Your task to perform on an android device: Go to location settings Image 0: 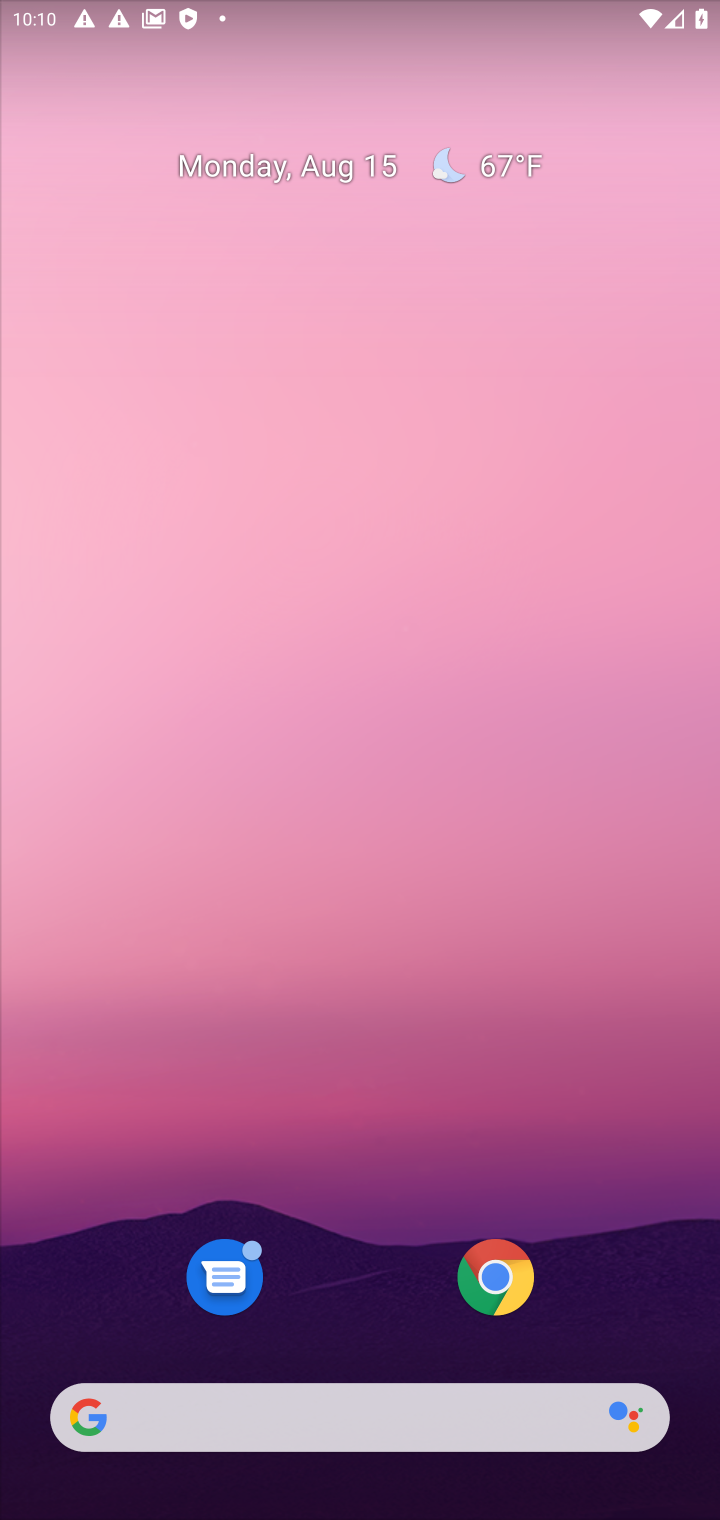
Step 0: drag from (305, 1323) to (287, 207)
Your task to perform on an android device: Go to location settings Image 1: 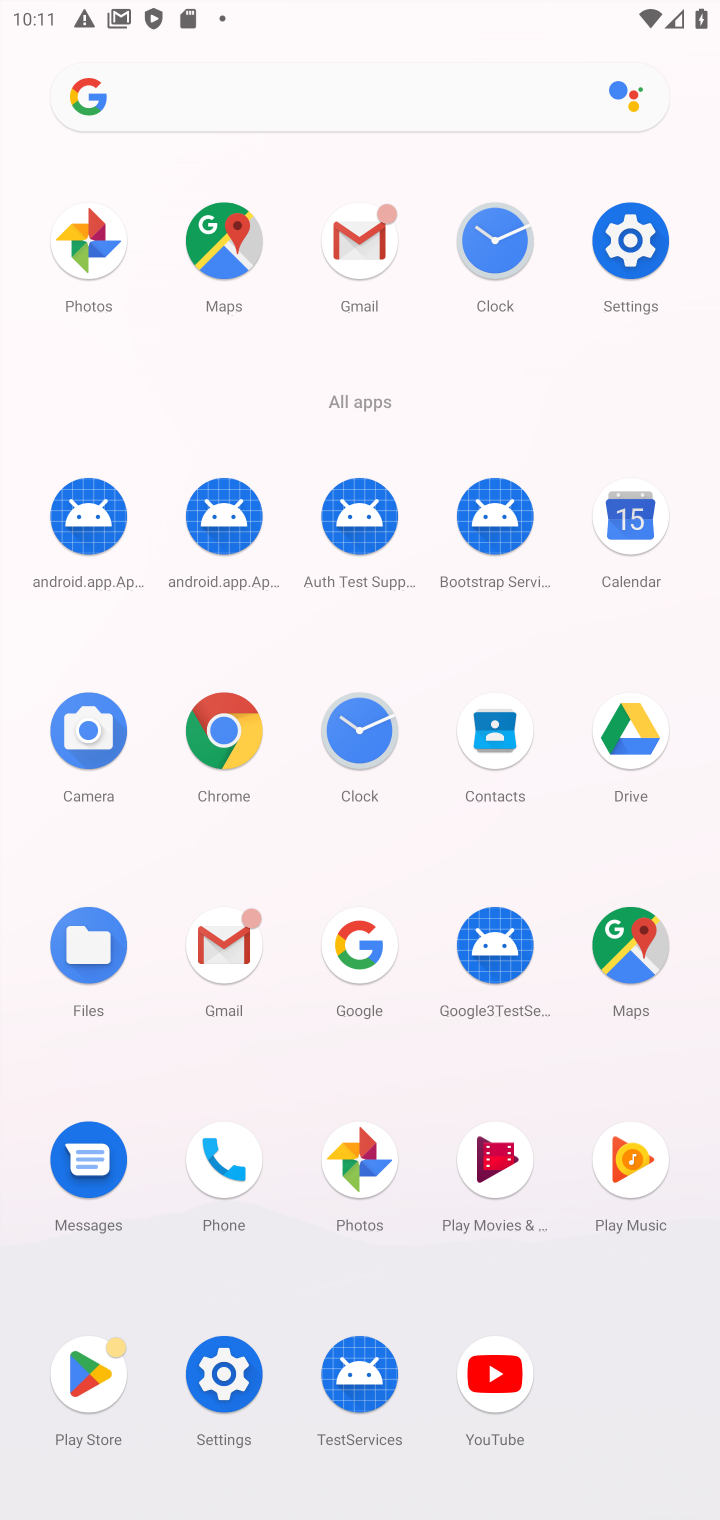
Step 1: click (220, 1346)
Your task to perform on an android device: Go to location settings Image 2: 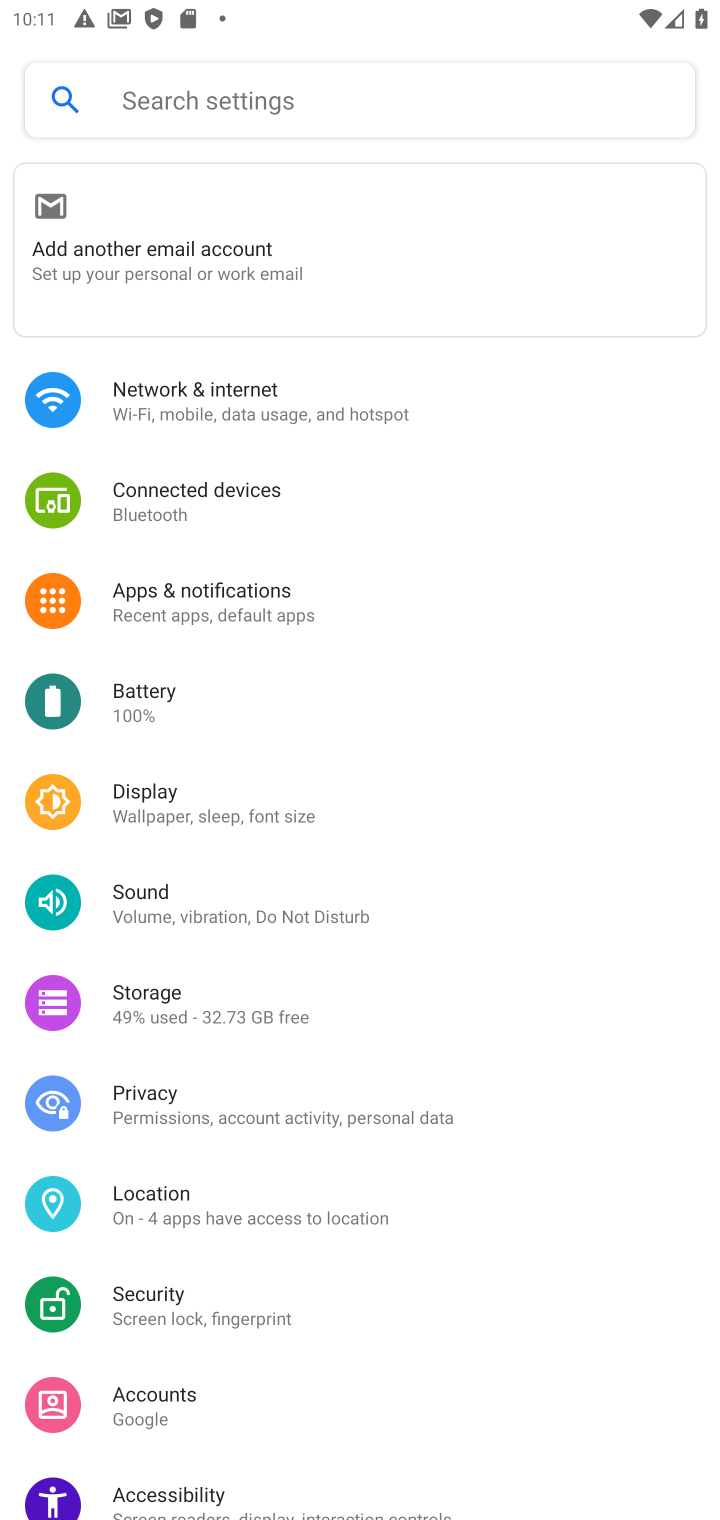
Step 2: click (230, 1210)
Your task to perform on an android device: Go to location settings Image 3: 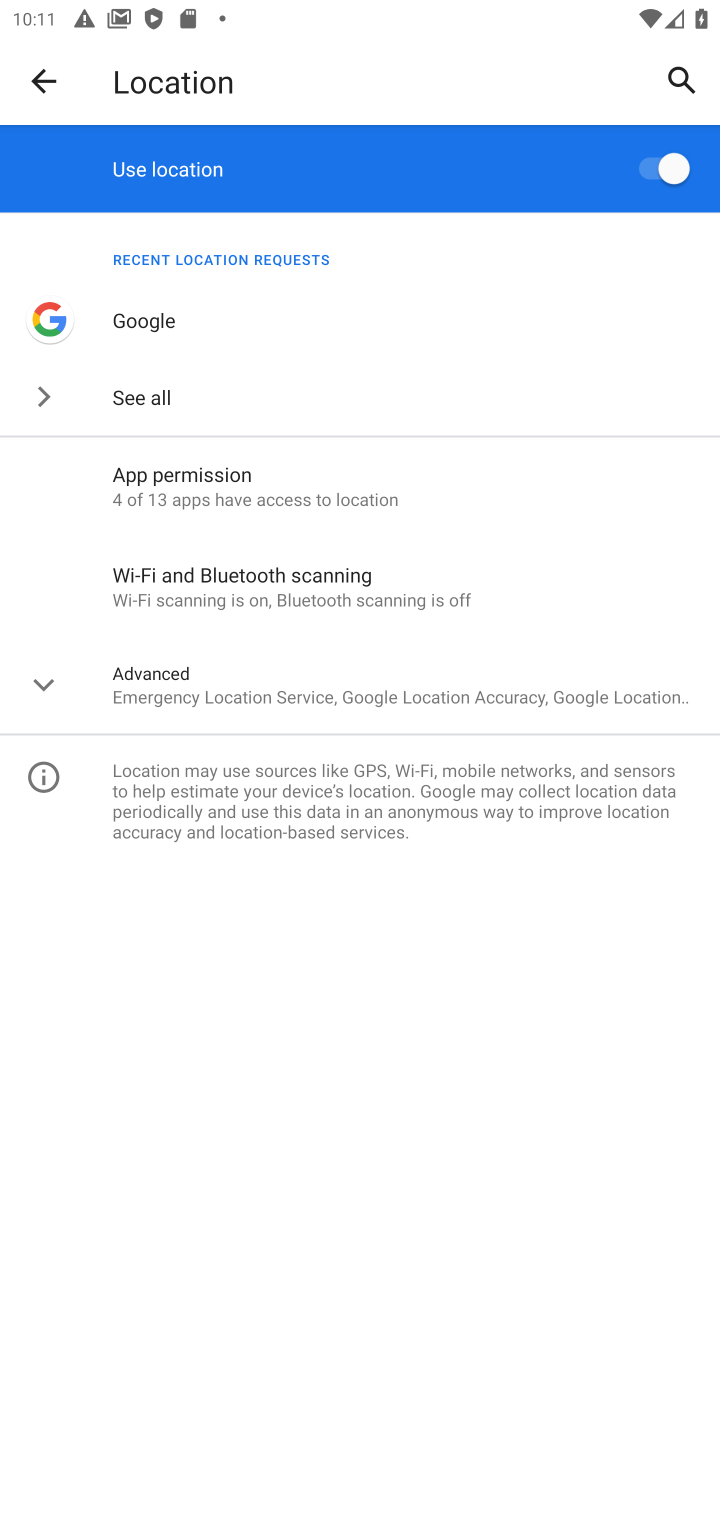
Step 3: task complete